Your task to perform on an android device: toggle improve location accuracy Image 0: 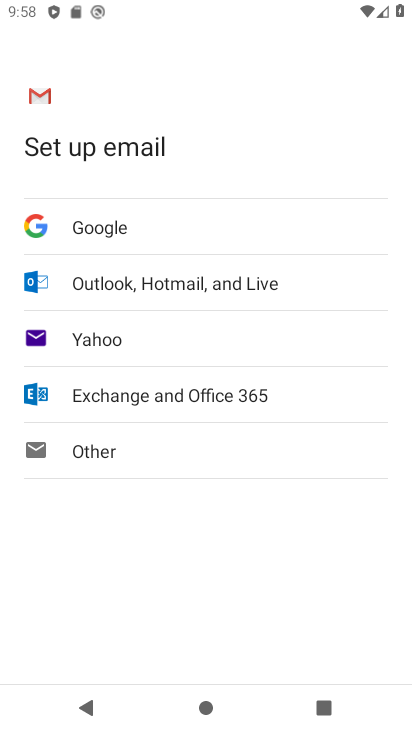
Step 0: press back button
Your task to perform on an android device: toggle improve location accuracy Image 1: 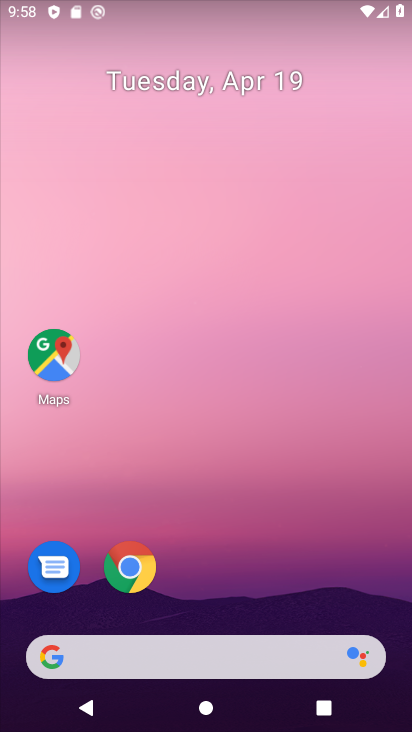
Step 1: drag from (349, 556) to (252, 105)
Your task to perform on an android device: toggle improve location accuracy Image 2: 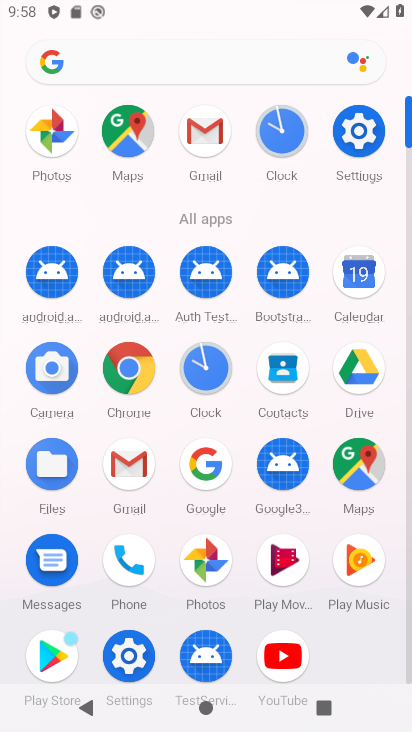
Step 2: click (364, 138)
Your task to perform on an android device: toggle improve location accuracy Image 3: 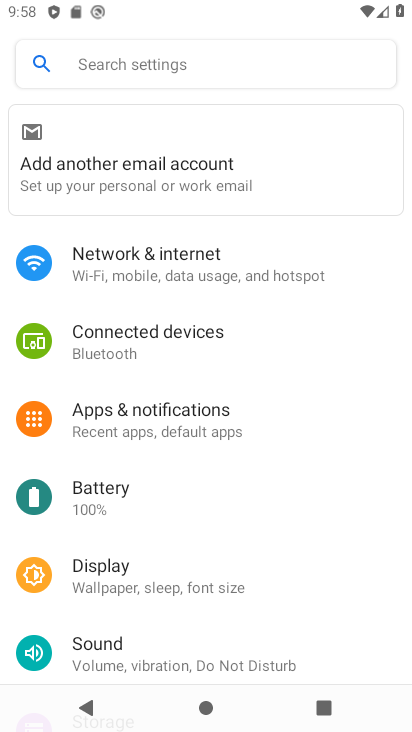
Step 3: drag from (291, 582) to (255, 230)
Your task to perform on an android device: toggle improve location accuracy Image 4: 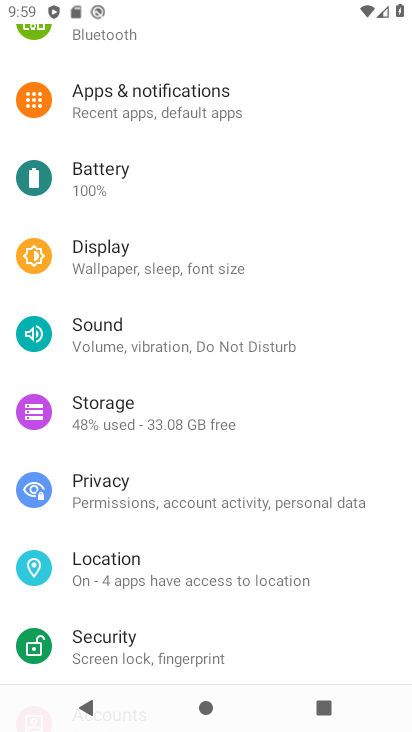
Step 4: drag from (194, 630) to (211, 414)
Your task to perform on an android device: toggle improve location accuracy Image 5: 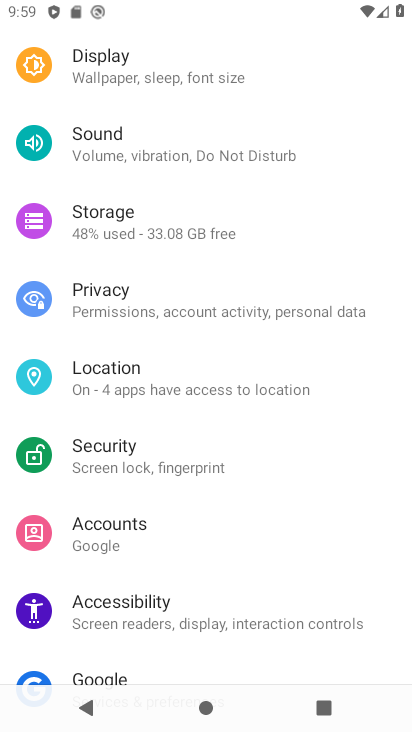
Step 5: click (230, 399)
Your task to perform on an android device: toggle improve location accuracy Image 6: 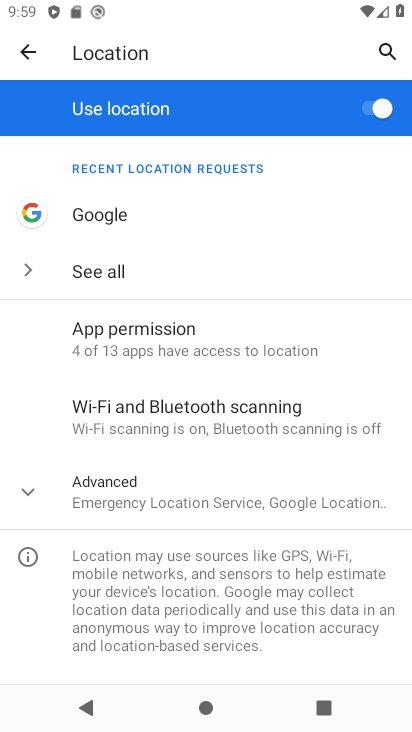
Step 6: click (239, 491)
Your task to perform on an android device: toggle improve location accuracy Image 7: 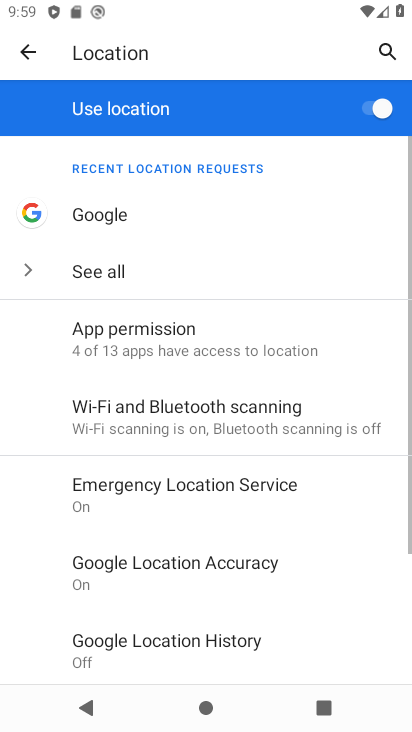
Step 7: drag from (239, 491) to (193, 280)
Your task to perform on an android device: toggle improve location accuracy Image 8: 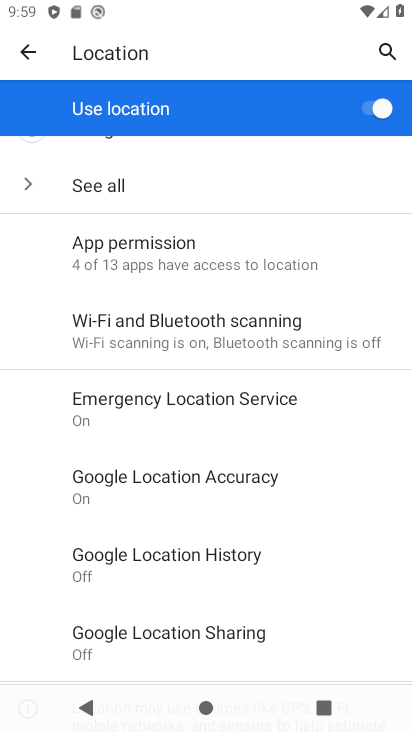
Step 8: click (228, 475)
Your task to perform on an android device: toggle improve location accuracy Image 9: 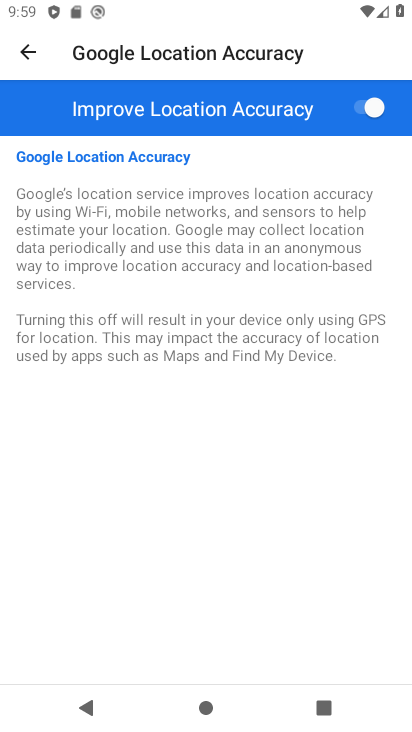
Step 9: click (354, 127)
Your task to perform on an android device: toggle improve location accuracy Image 10: 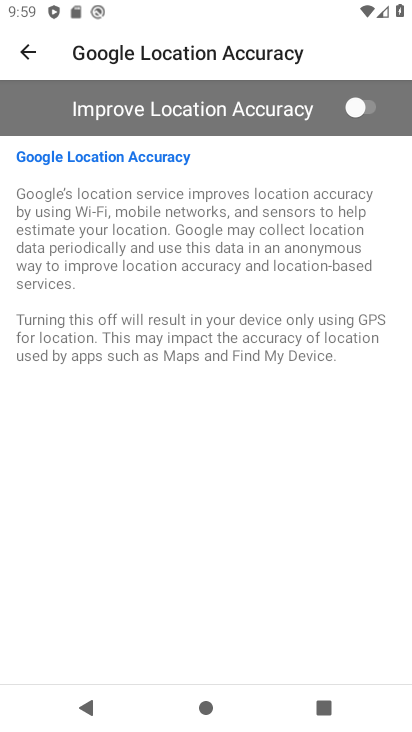
Step 10: task complete